Your task to perform on an android device: set default search engine in the chrome app Image 0: 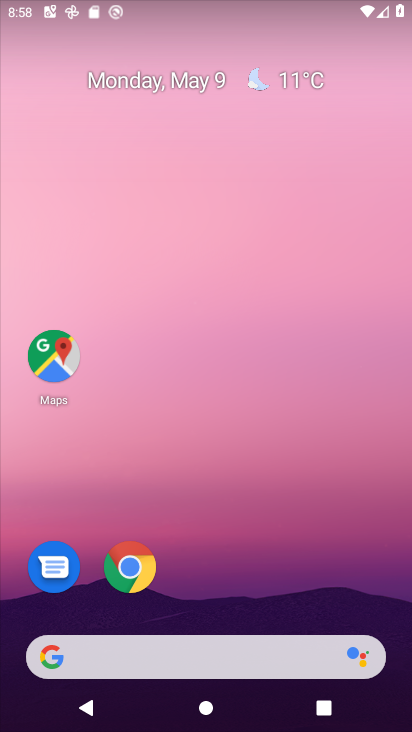
Step 0: click (144, 568)
Your task to perform on an android device: set default search engine in the chrome app Image 1: 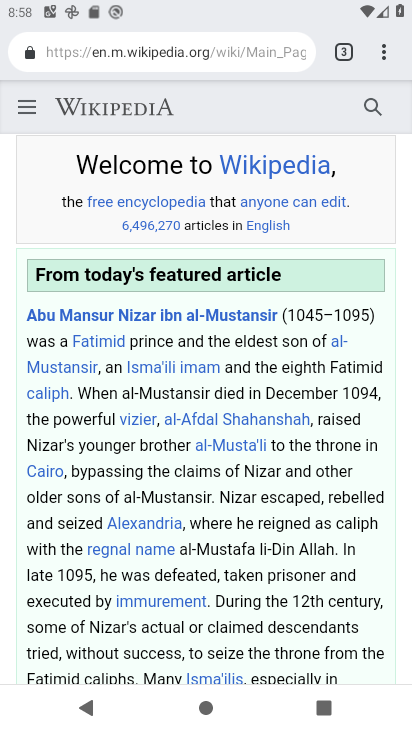
Step 1: click (378, 43)
Your task to perform on an android device: set default search engine in the chrome app Image 2: 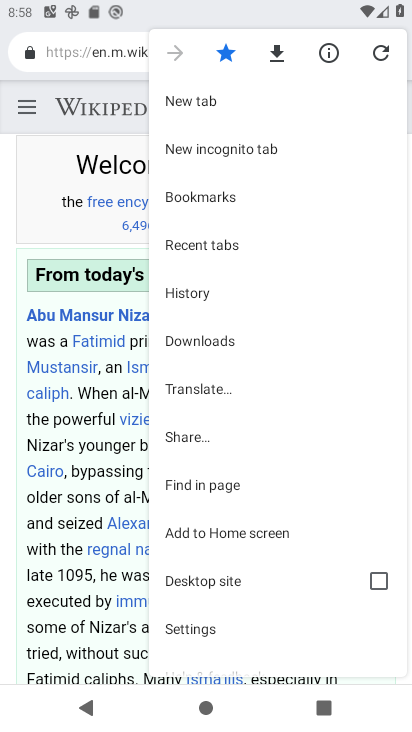
Step 2: click (240, 630)
Your task to perform on an android device: set default search engine in the chrome app Image 3: 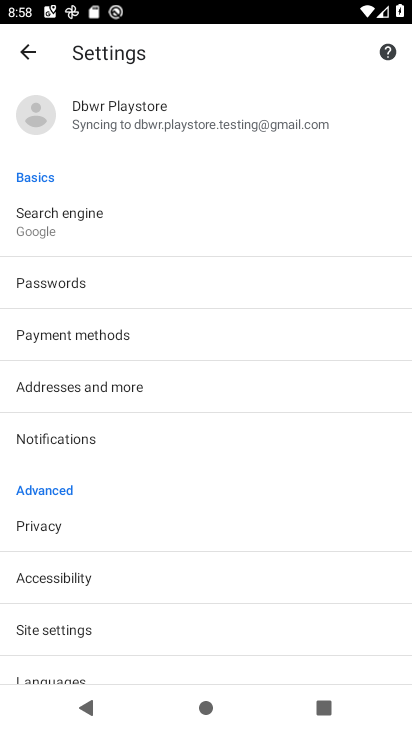
Step 3: click (93, 210)
Your task to perform on an android device: set default search engine in the chrome app Image 4: 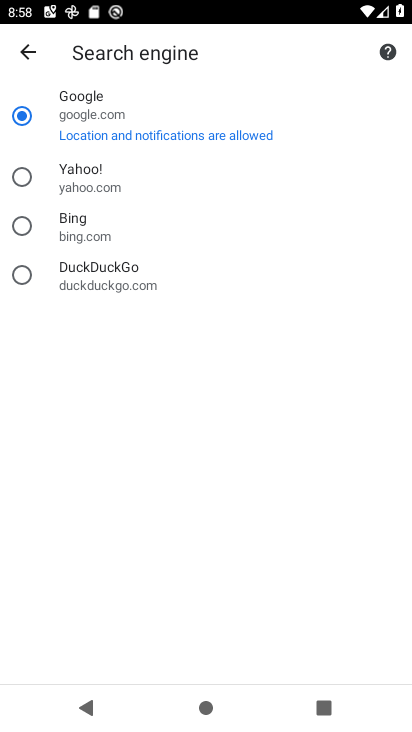
Step 4: task complete